Your task to perform on an android device: Set the phone to "Do not disturb". Image 0: 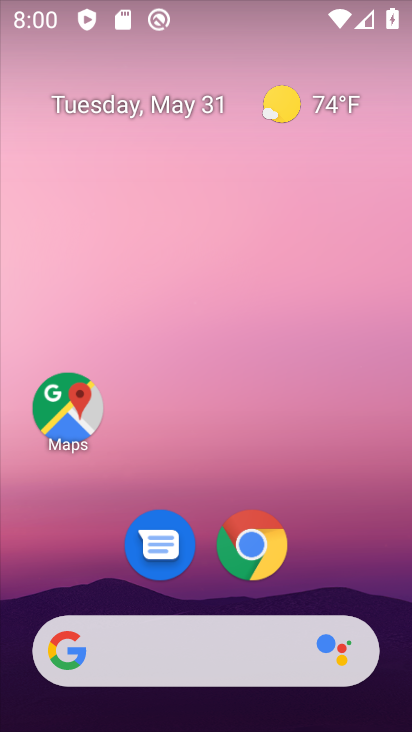
Step 0: drag from (361, 559) to (257, 11)
Your task to perform on an android device: Set the phone to "Do not disturb". Image 1: 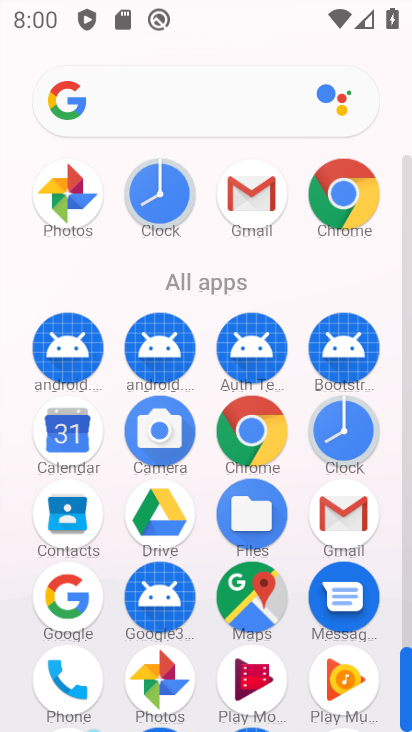
Step 1: drag from (7, 555) to (13, 218)
Your task to perform on an android device: Set the phone to "Do not disturb". Image 2: 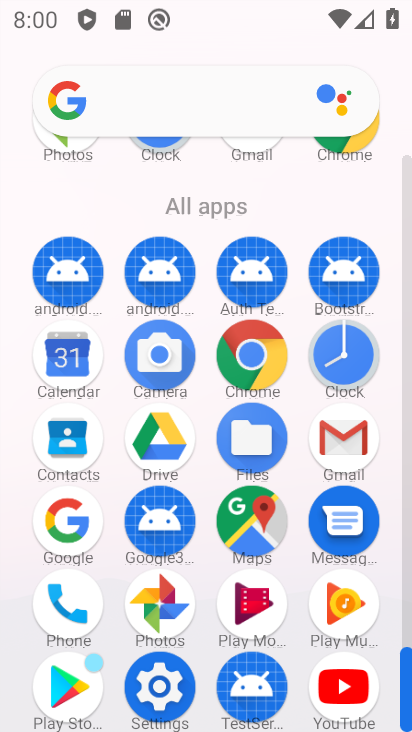
Step 2: click (156, 684)
Your task to perform on an android device: Set the phone to "Do not disturb". Image 3: 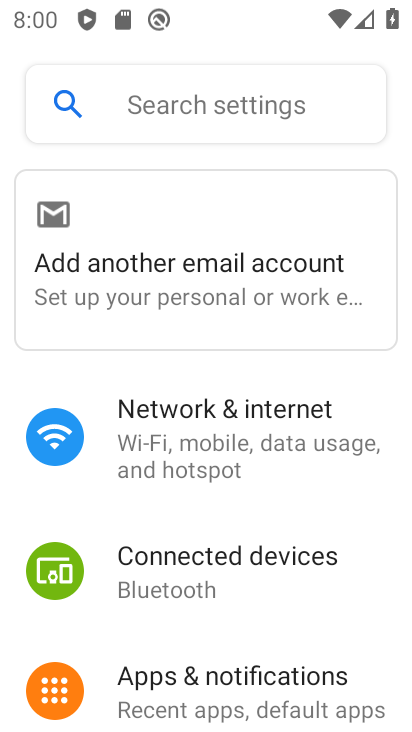
Step 3: drag from (317, 622) to (355, 242)
Your task to perform on an android device: Set the phone to "Do not disturb". Image 4: 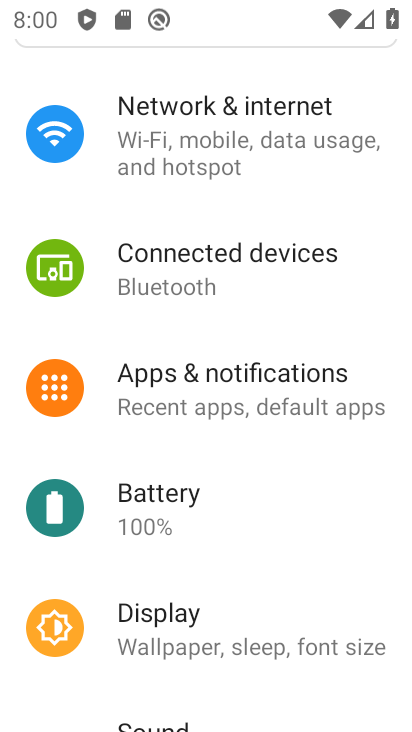
Step 4: drag from (293, 612) to (330, 283)
Your task to perform on an android device: Set the phone to "Do not disturb". Image 5: 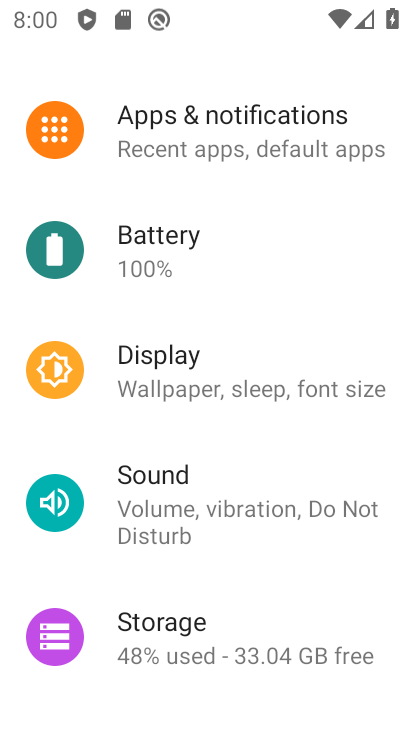
Step 5: click (206, 499)
Your task to perform on an android device: Set the phone to "Do not disturb". Image 6: 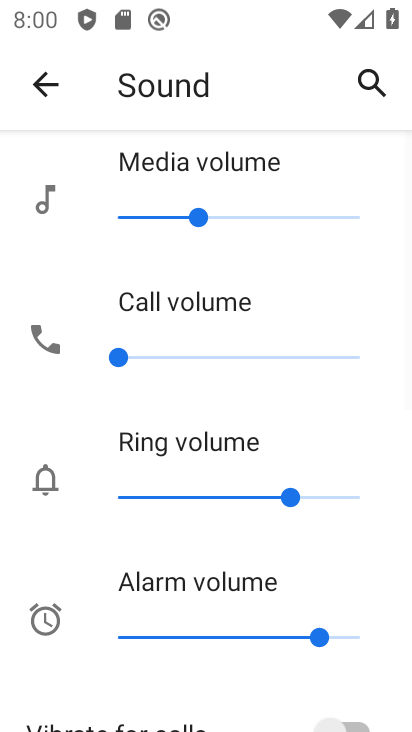
Step 6: drag from (206, 542) to (269, 130)
Your task to perform on an android device: Set the phone to "Do not disturb". Image 7: 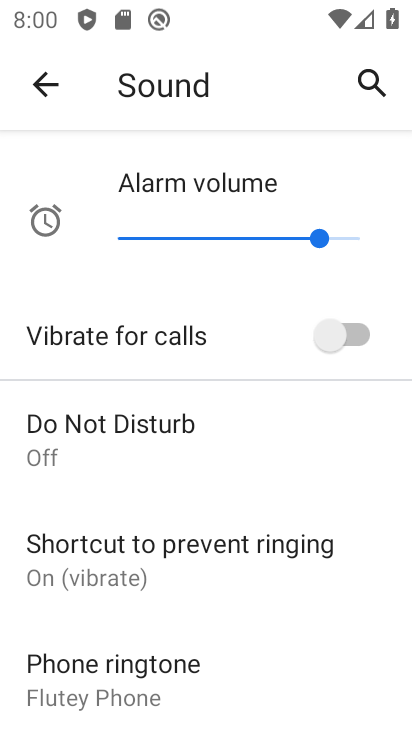
Step 7: click (163, 417)
Your task to perform on an android device: Set the phone to "Do not disturb". Image 8: 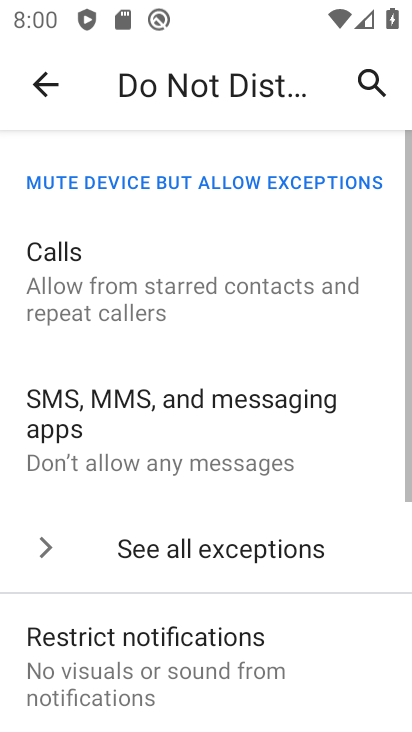
Step 8: drag from (238, 614) to (267, 231)
Your task to perform on an android device: Set the phone to "Do not disturb". Image 9: 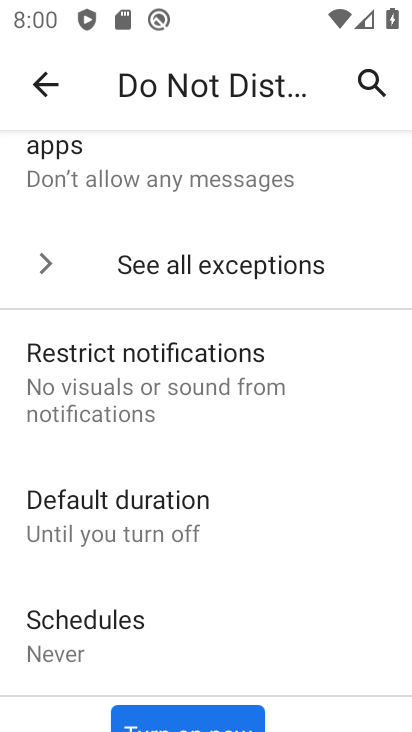
Step 9: drag from (237, 633) to (252, 287)
Your task to perform on an android device: Set the phone to "Do not disturb". Image 10: 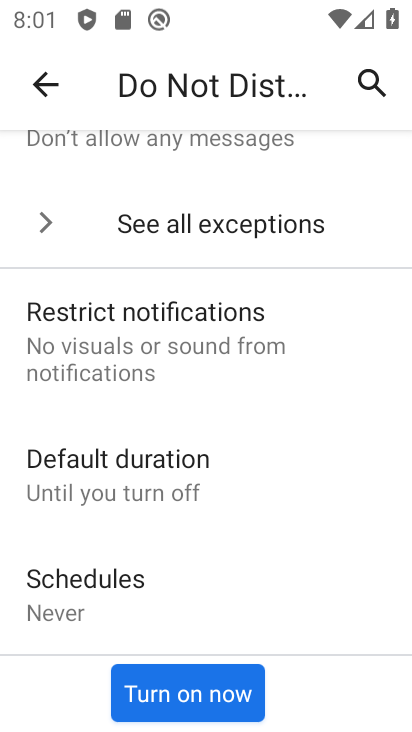
Step 10: click (192, 687)
Your task to perform on an android device: Set the phone to "Do not disturb". Image 11: 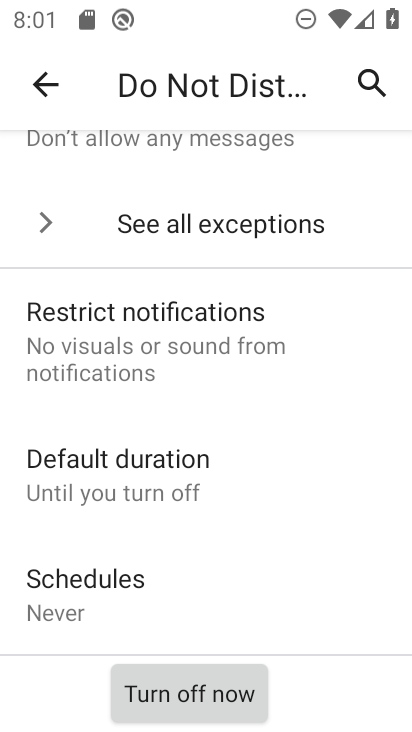
Step 11: task complete